Your task to perform on an android device: open a new tab in the chrome app Image 0: 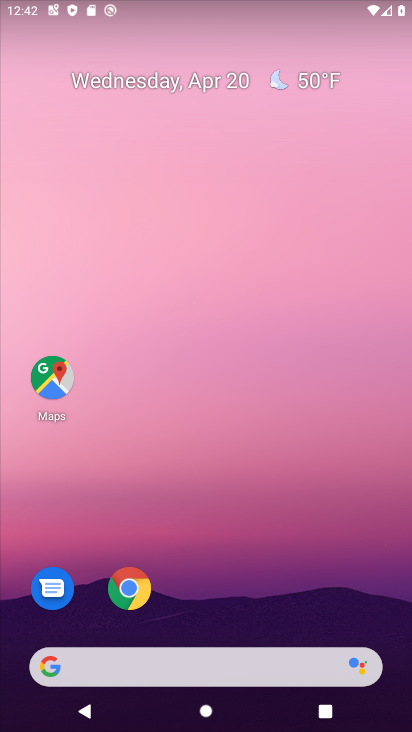
Step 0: drag from (191, 609) to (230, 210)
Your task to perform on an android device: open a new tab in the chrome app Image 1: 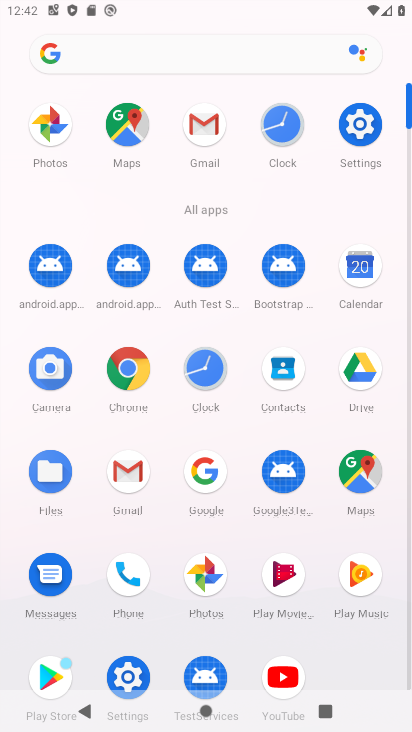
Step 1: click (124, 376)
Your task to perform on an android device: open a new tab in the chrome app Image 2: 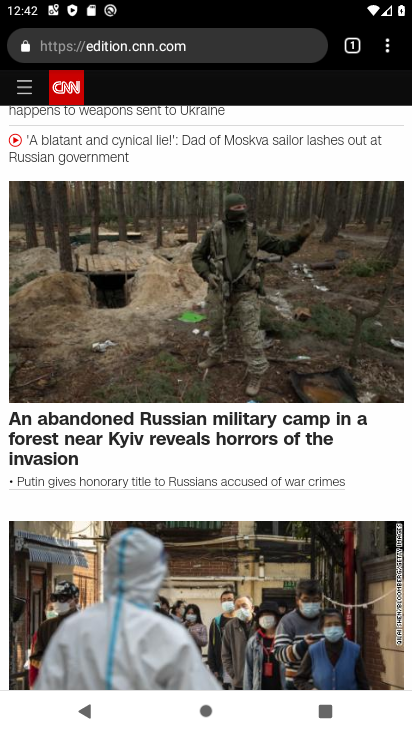
Step 2: click (356, 53)
Your task to perform on an android device: open a new tab in the chrome app Image 3: 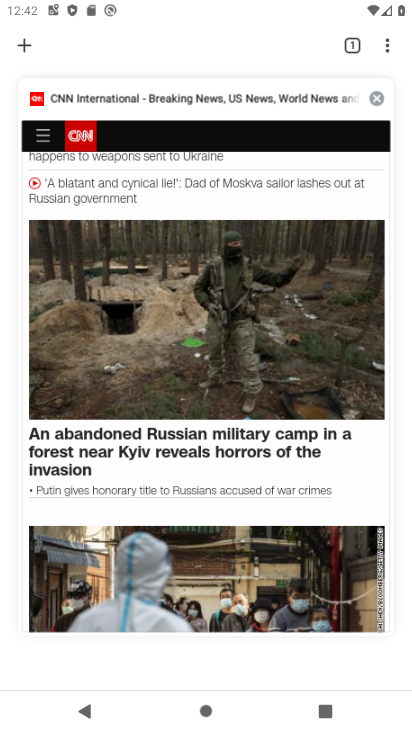
Step 3: click (381, 47)
Your task to perform on an android device: open a new tab in the chrome app Image 4: 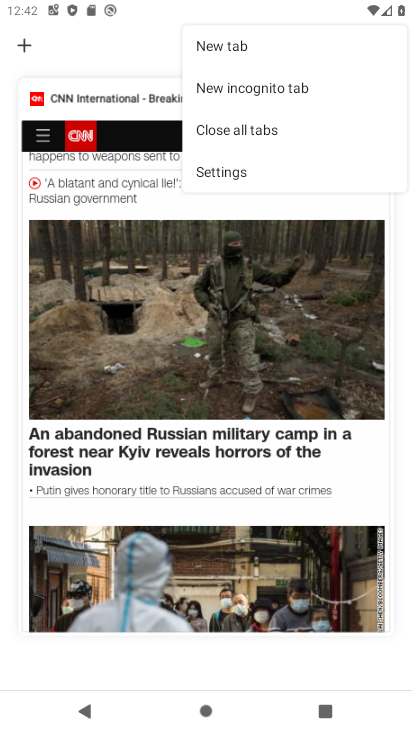
Step 4: click (245, 44)
Your task to perform on an android device: open a new tab in the chrome app Image 5: 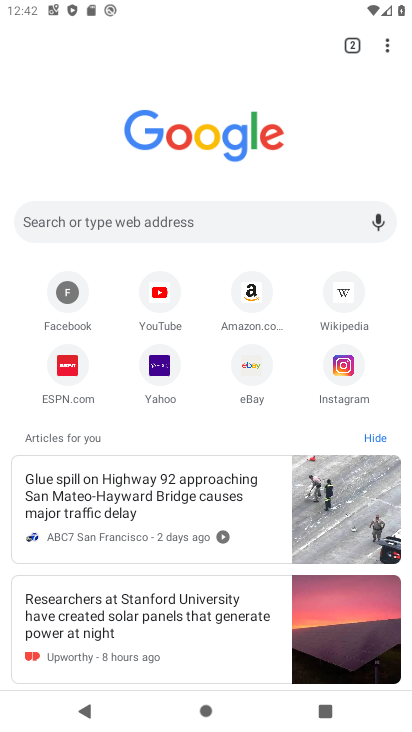
Step 5: task complete